Your task to perform on an android device: check storage Image 0: 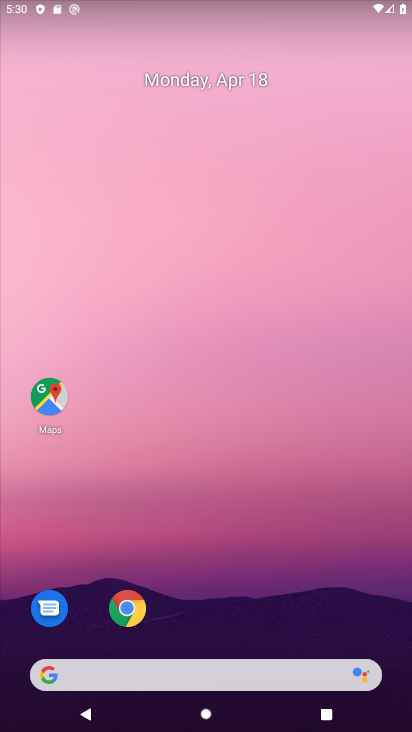
Step 0: drag from (230, 618) to (347, 0)
Your task to perform on an android device: check storage Image 1: 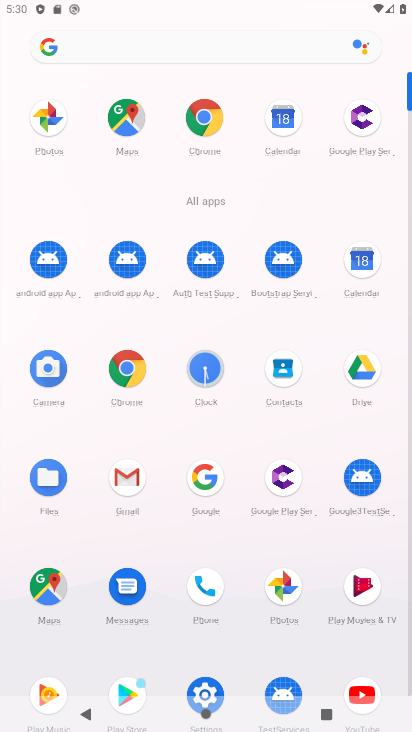
Step 1: click (206, 685)
Your task to perform on an android device: check storage Image 2: 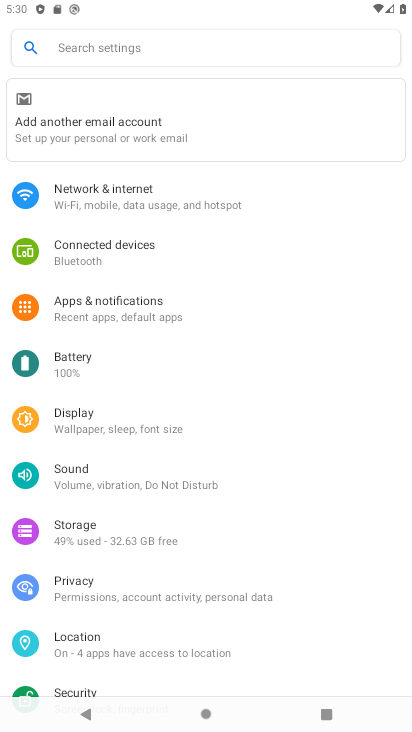
Step 2: click (91, 451)
Your task to perform on an android device: check storage Image 3: 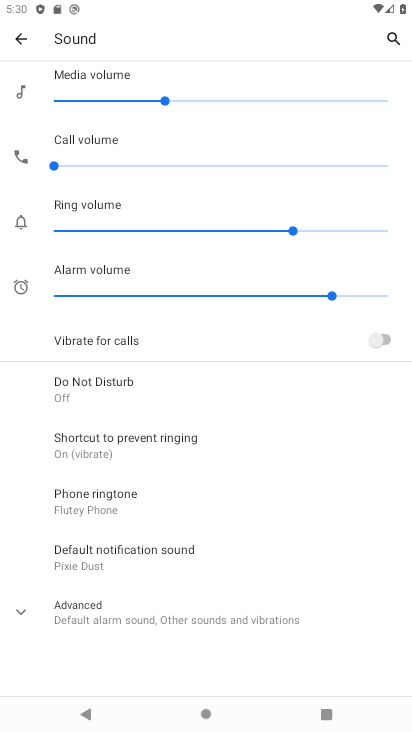
Step 3: click (91, 541)
Your task to perform on an android device: check storage Image 4: 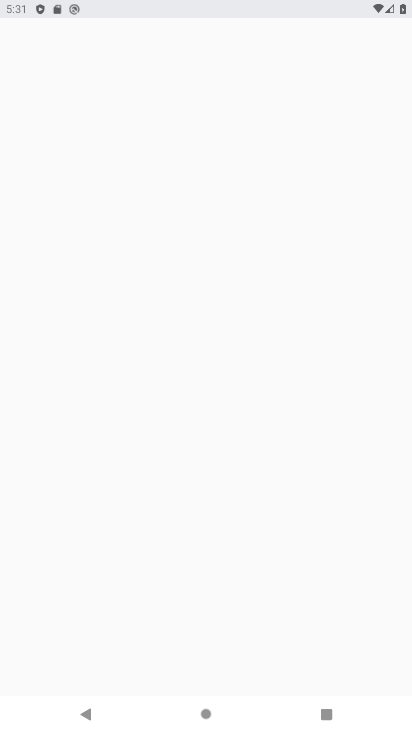
Step 4: click (19, 39)
Your task to perform on an android device: check storage Image 5: 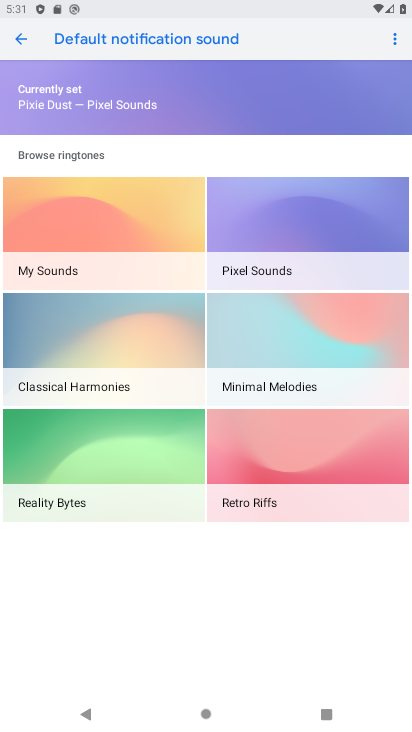
Step 5: press back button
Your task to perform on an android device: check storage Image 6: 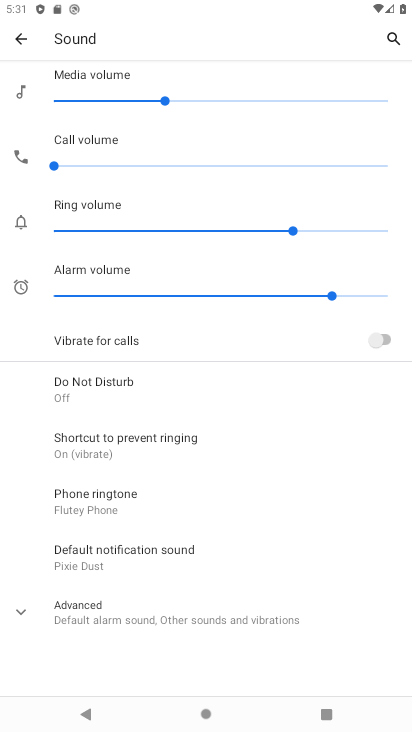
Step 6: press back button
Your task to perform on an android device: check storage Image 7: 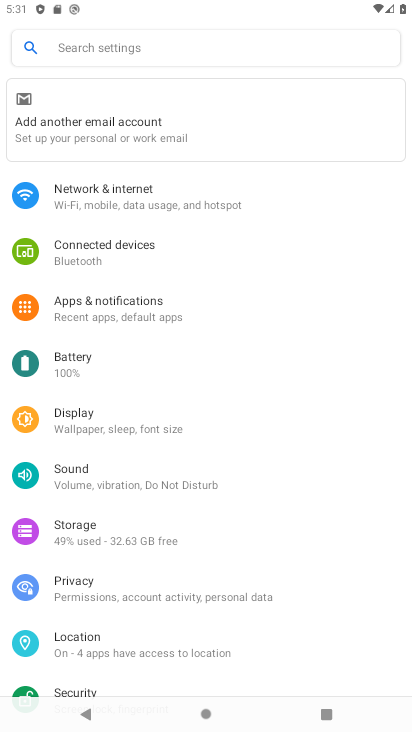
Step 7: click (93, 533)
Your task to perform on an android device: check storage Image 8: 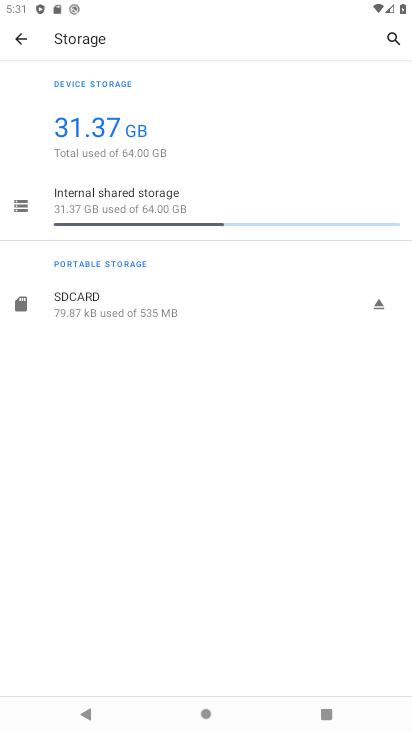
Step 8: click (166, 206)
Your task to perform on an android device: check storage Image 9: 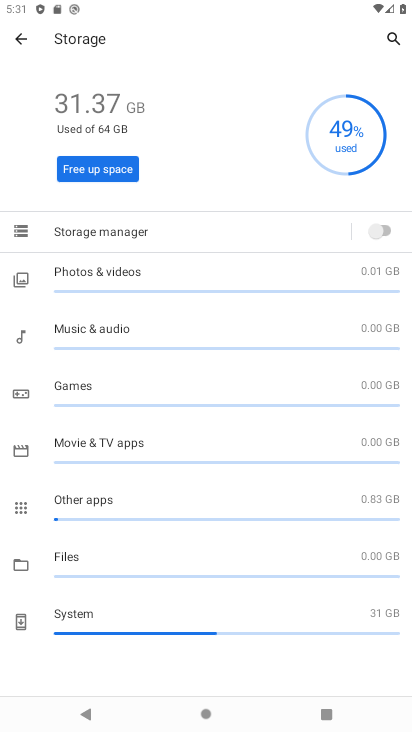
Step 9: task complete